Your task to perform on an android device: Open settings Image 0: 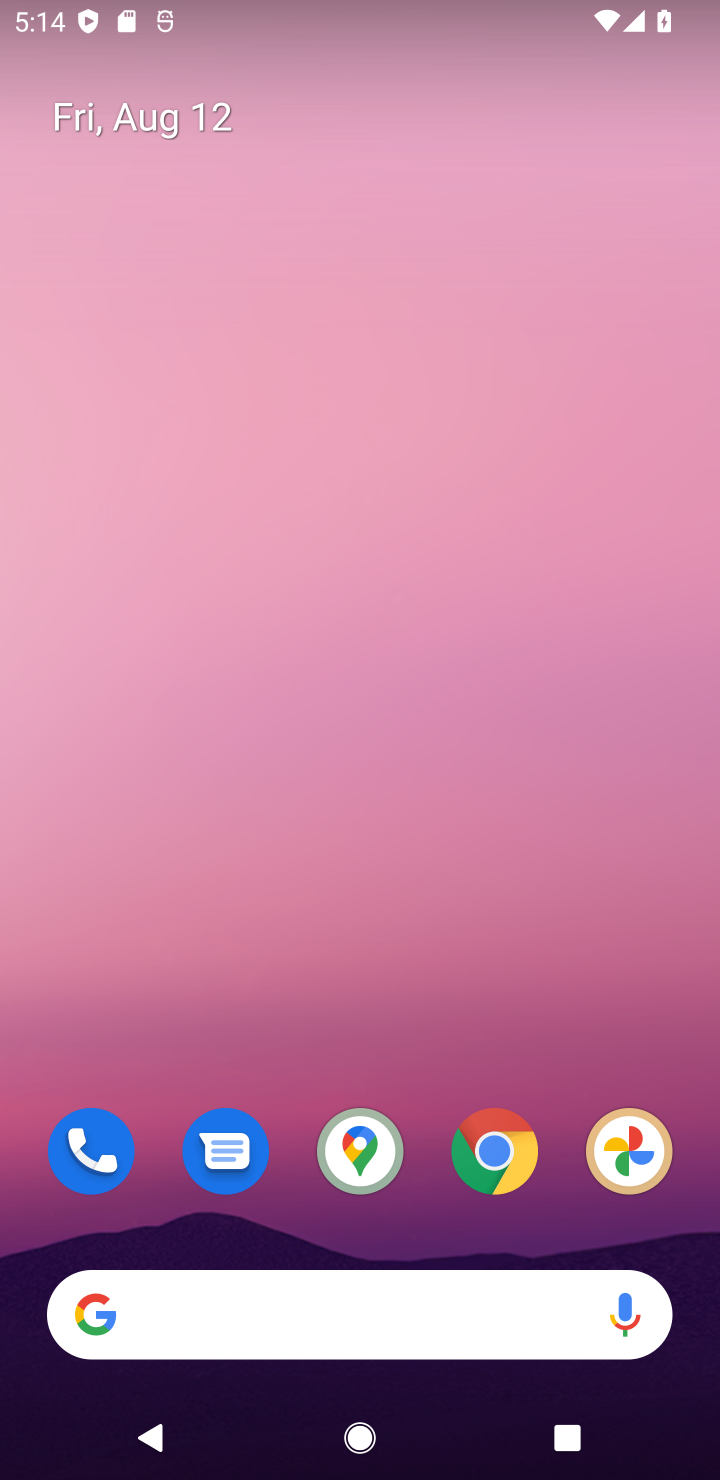
Step 0: drag from (409, 971) to (525, 103)
Your task to perform on an android device: Open settings Image 1: 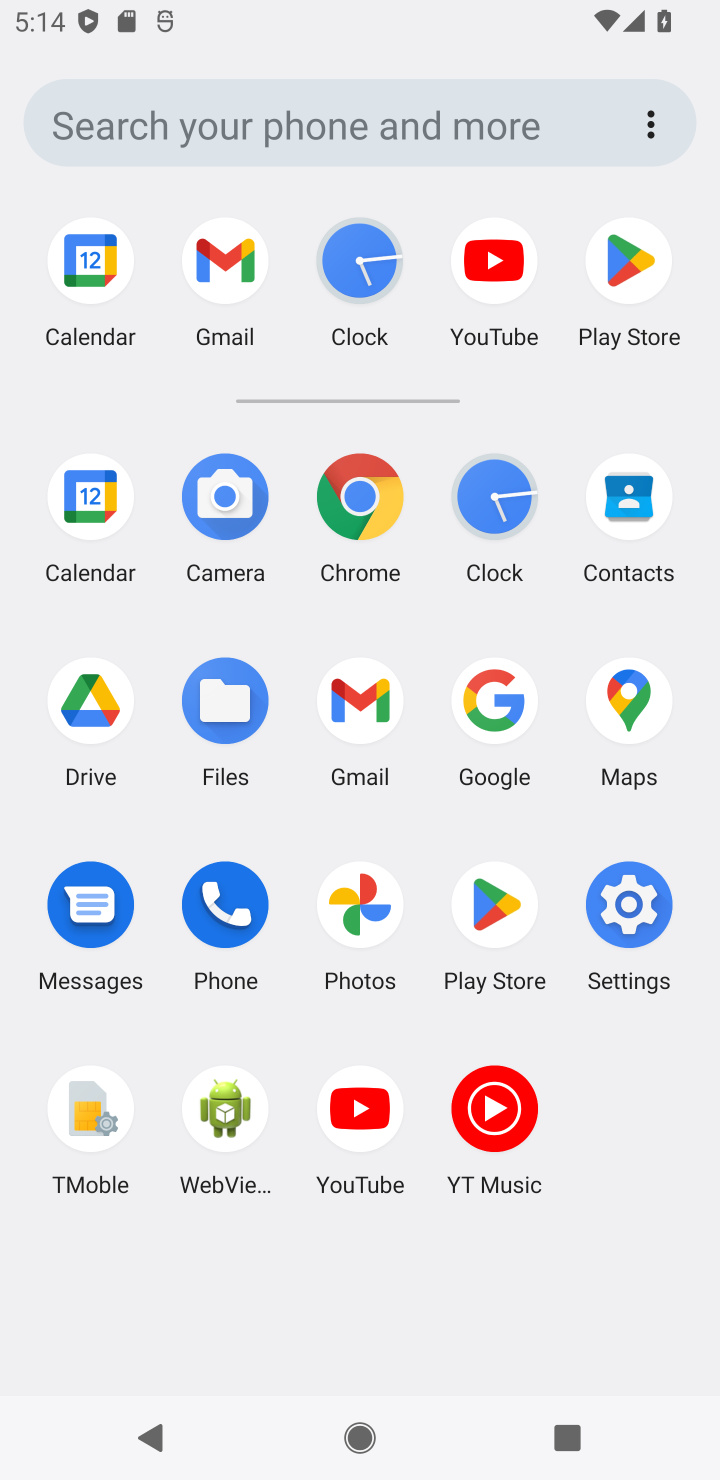
Step 1: click (631, 902)
Your task to perform on an android device: Open settings Image 2: 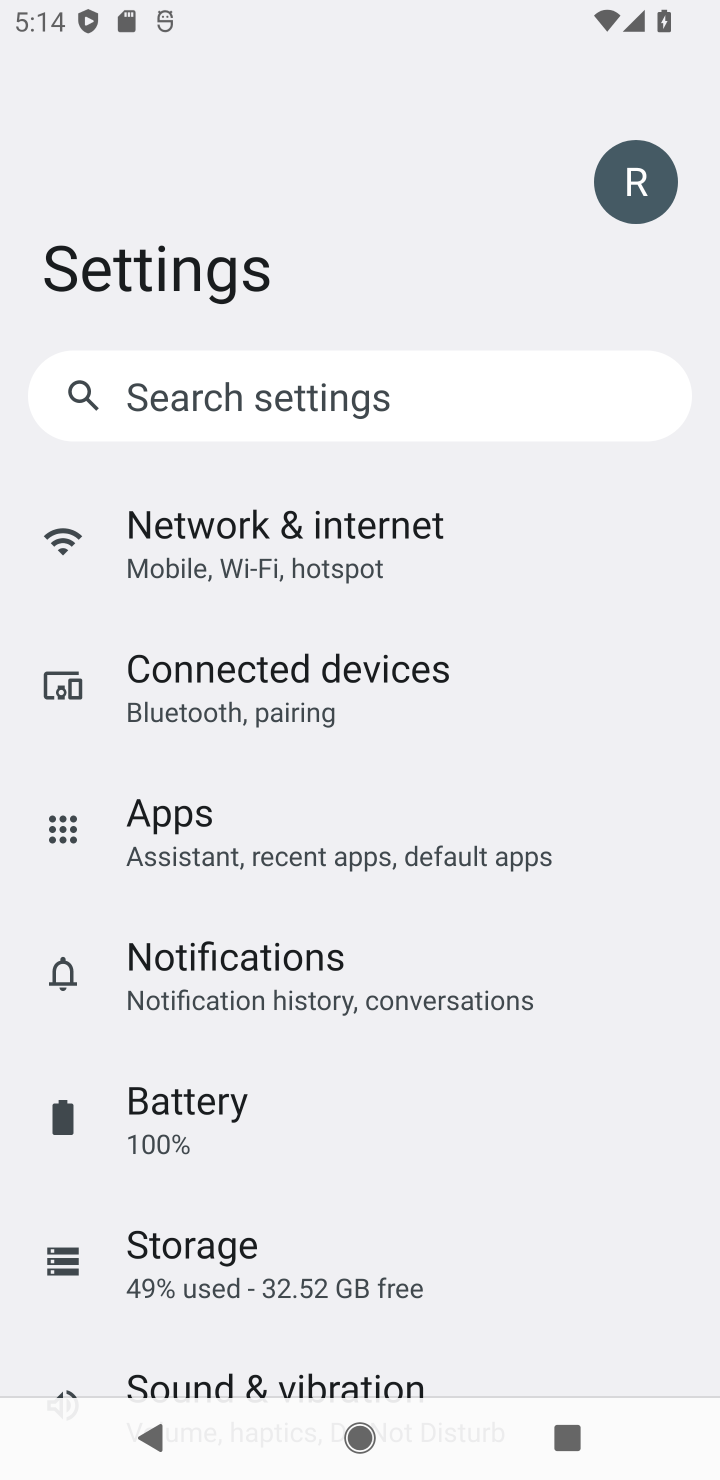
Step 2: task complete